Your task to perform on an android device: Add "beats solo 3" to the cart on costco Image 0: 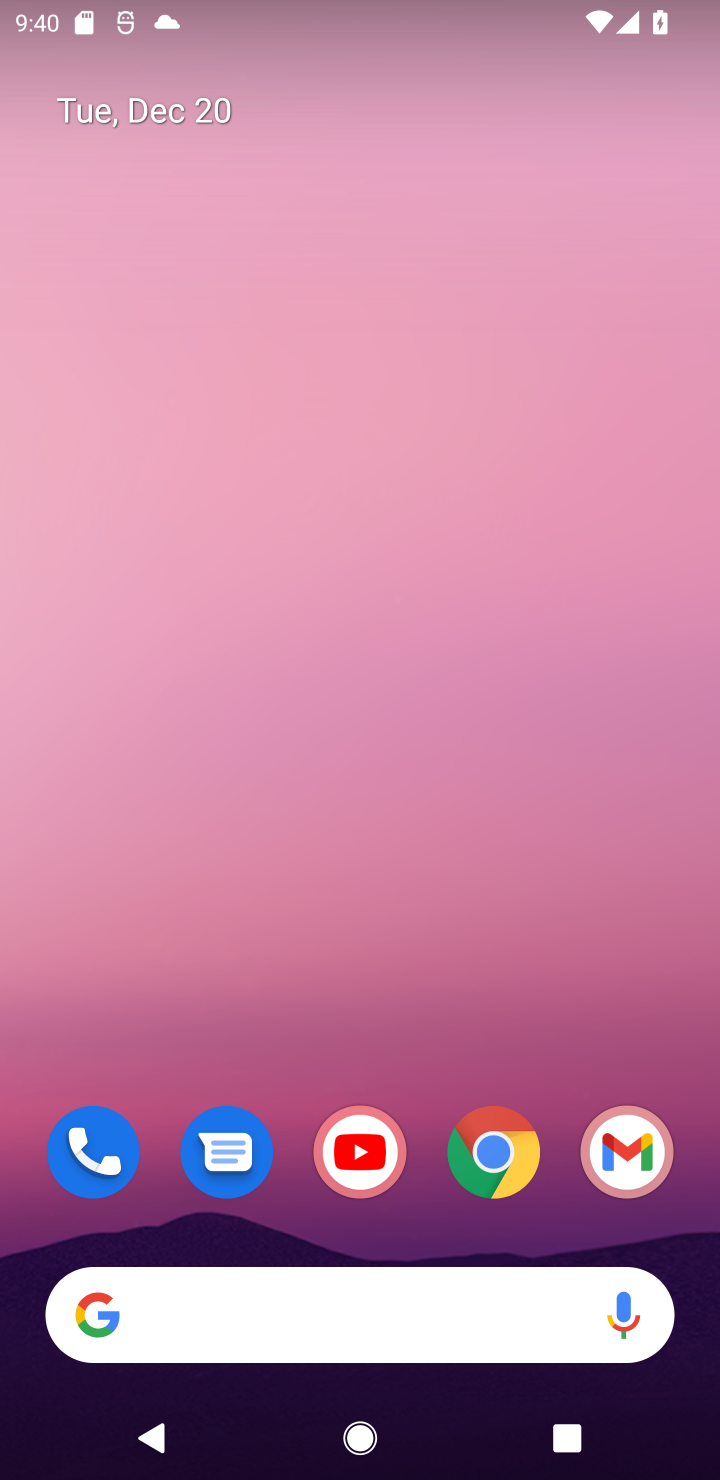
Step 0: click (511, 1137)
Your task to perform on an android device: Add "beats solo 3" to the cart on costco Image 1: 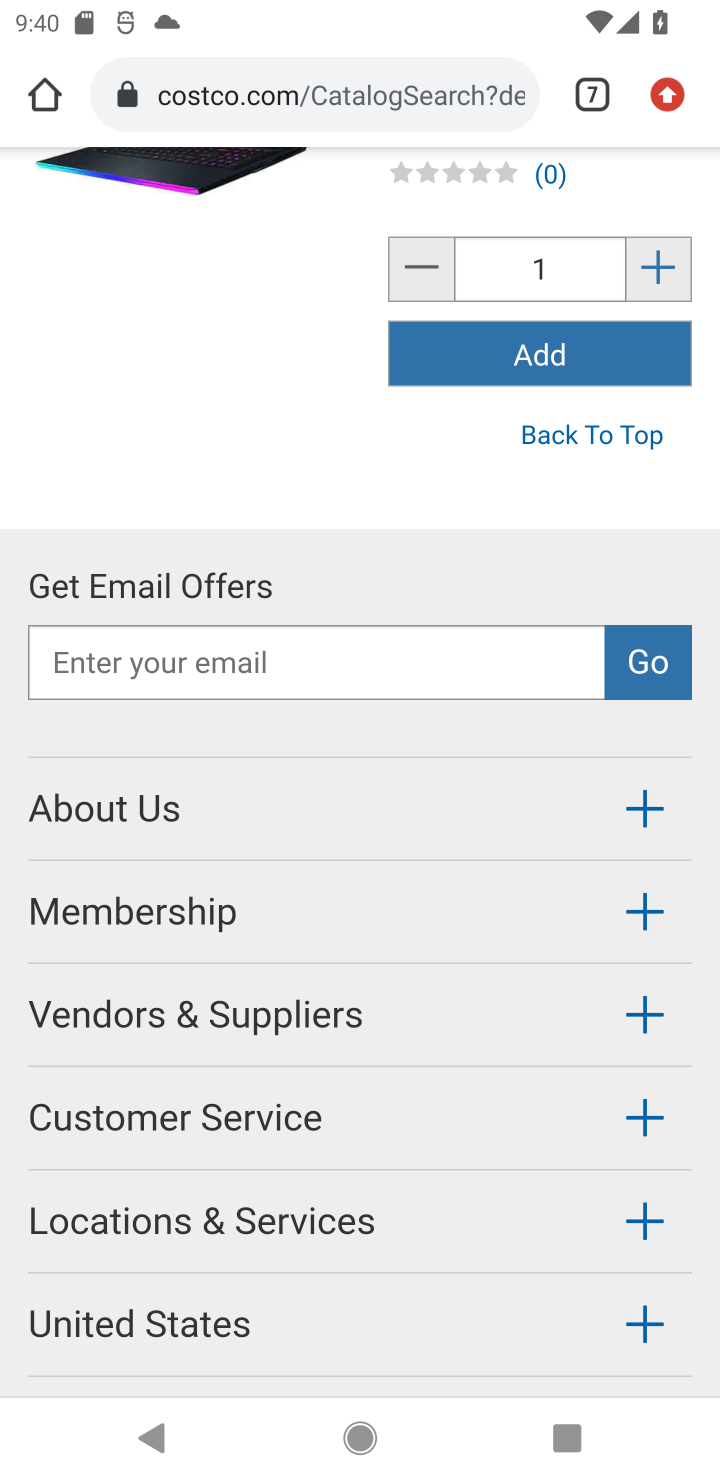
Step 1: drag from (200, 289) to (110, 1034)
Your task to perform on an android device: Add "beats solo 3" to the cart on costco Image 2: 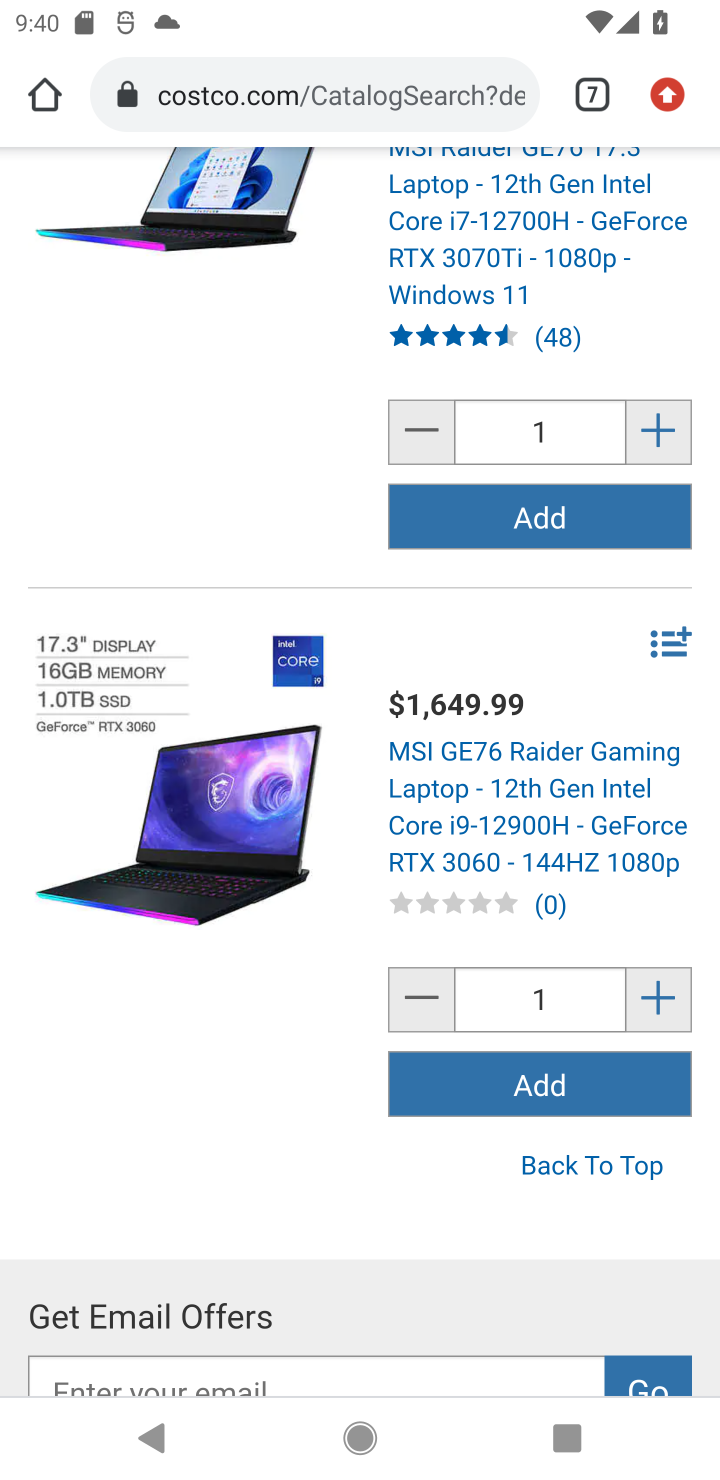
Step 2: drag from (126, 703) to (164, 1074)
Your task to perform on an android device: Add "beats solo 3" to the cart on costco Image 3: 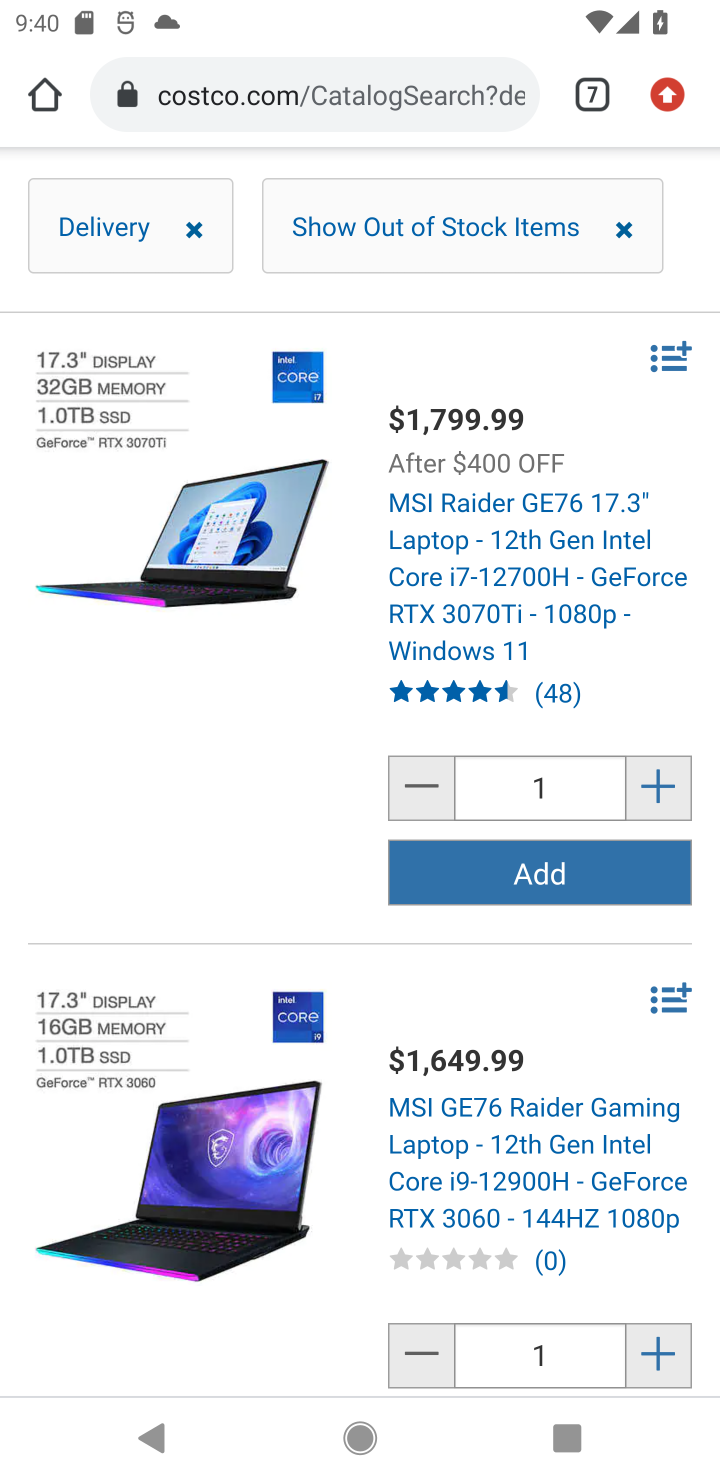
Step 3: drag from (377, 442) to (353, 1029)
Your task to perform on an android device: Add "beats solo 3" to the cart on costco Image 4: 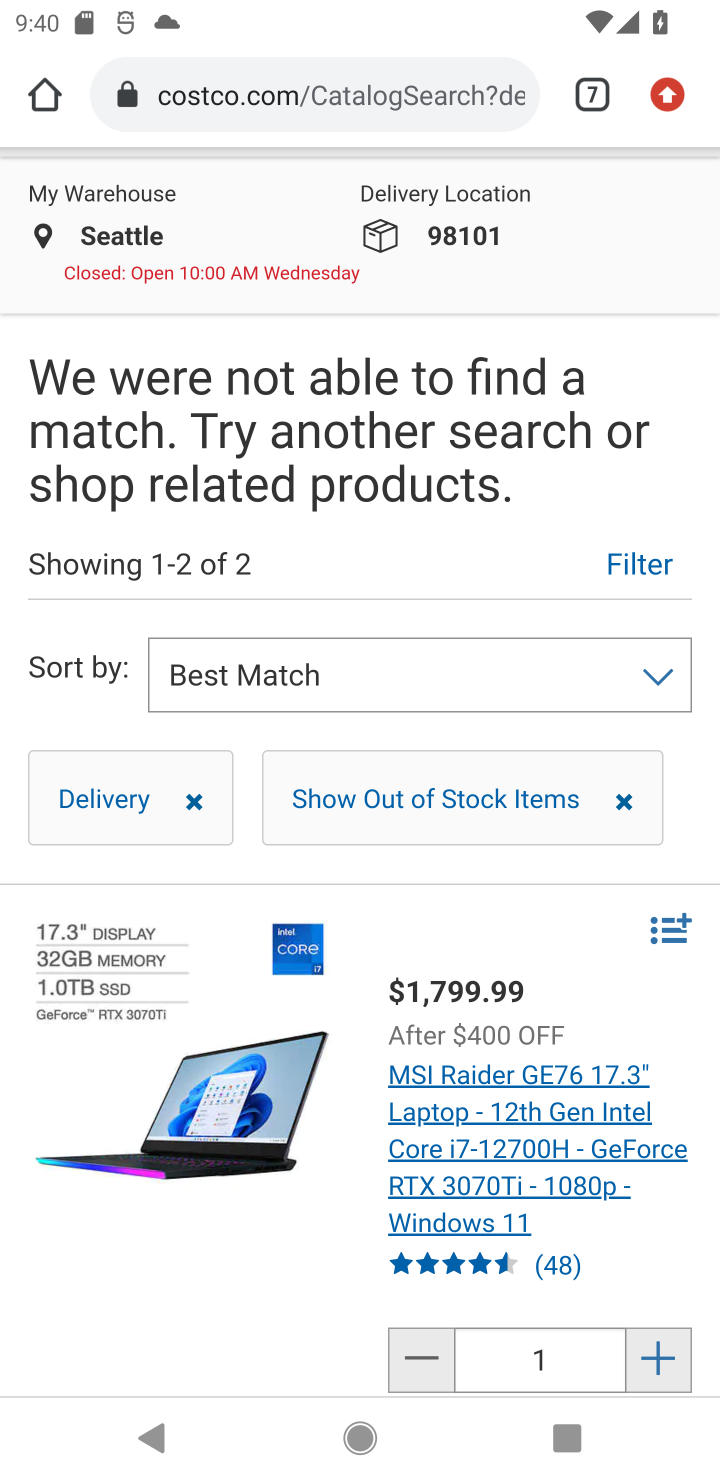
Step 4: drag from (540, 237) to (479, 898)
Your task to perform on an android device: Add "beats solo 3" to the cart on costco Image 5: 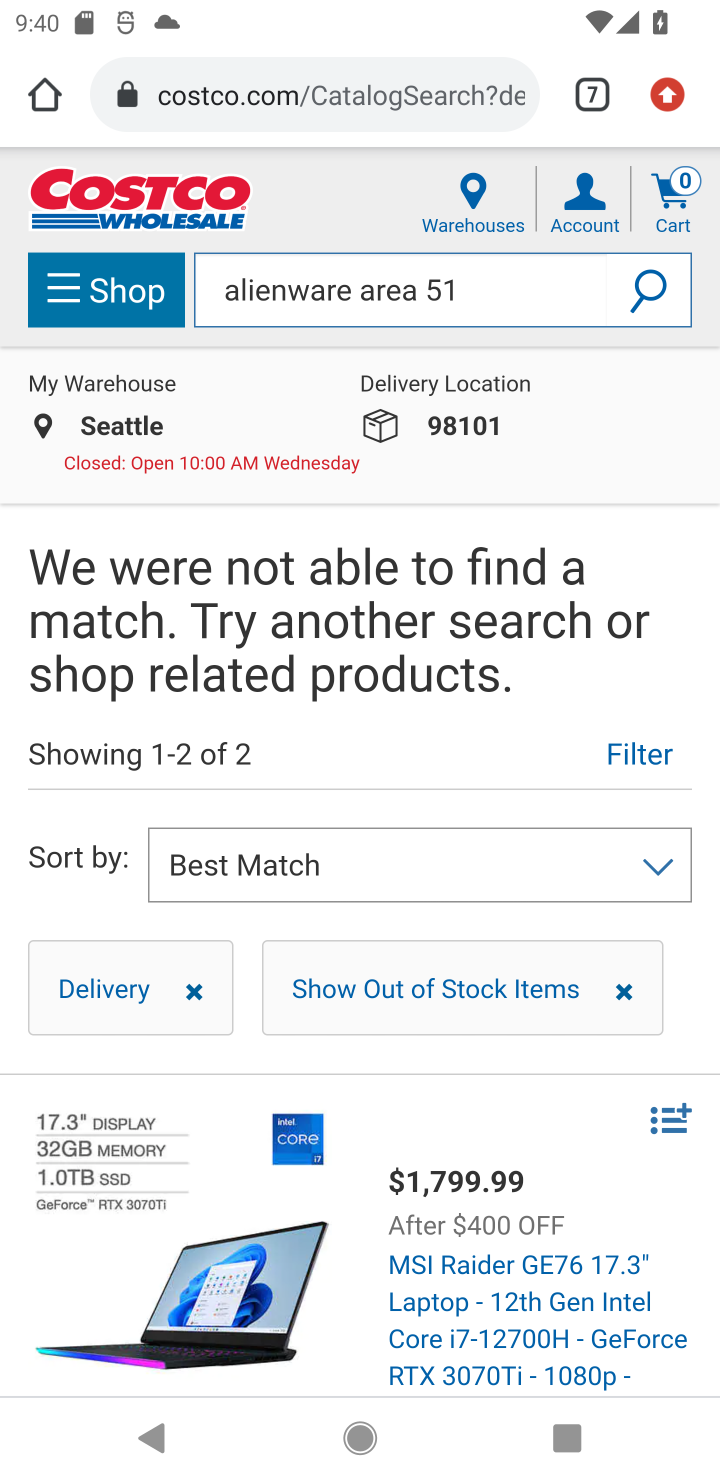
Step 5: click (512, 267)
Your task to perform on an android device: Add "beats solo 3" to the cart on costco Image 6: 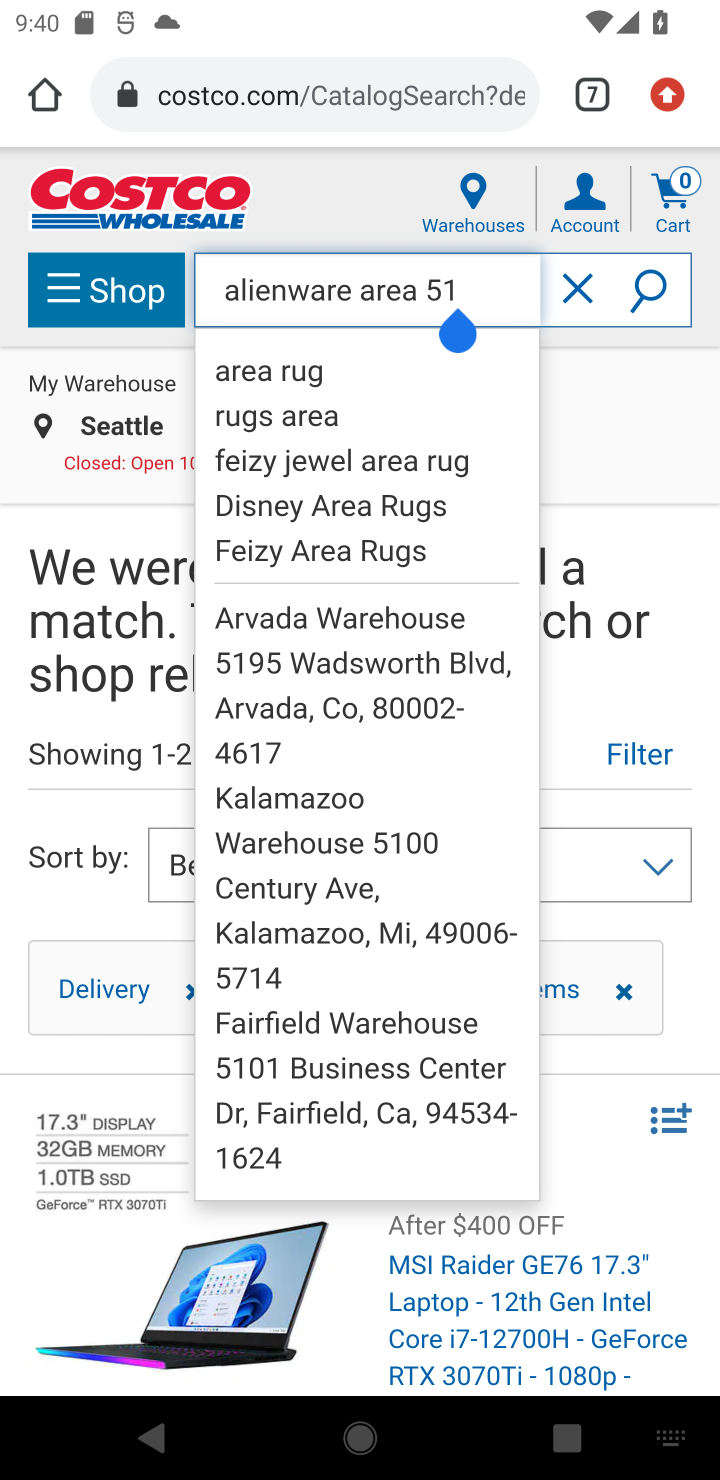
Step 6: click (570, 287)
Your task to perform on an android device: Add "beats solo 3" to the cart on costco Image 7: 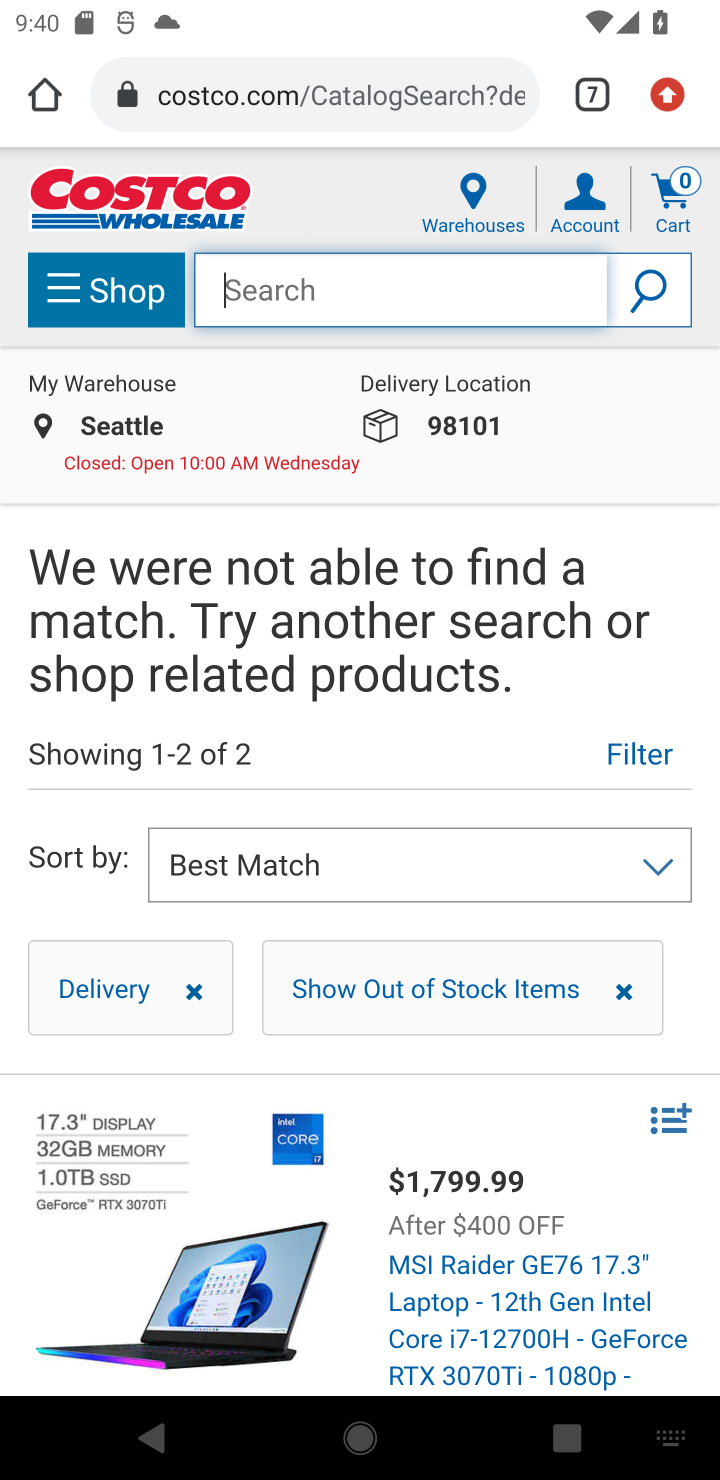
Step 7: type "beats solo 3"
Your task to perform on an android device: Add "beats solo 3" to the cart on costco Image 8: 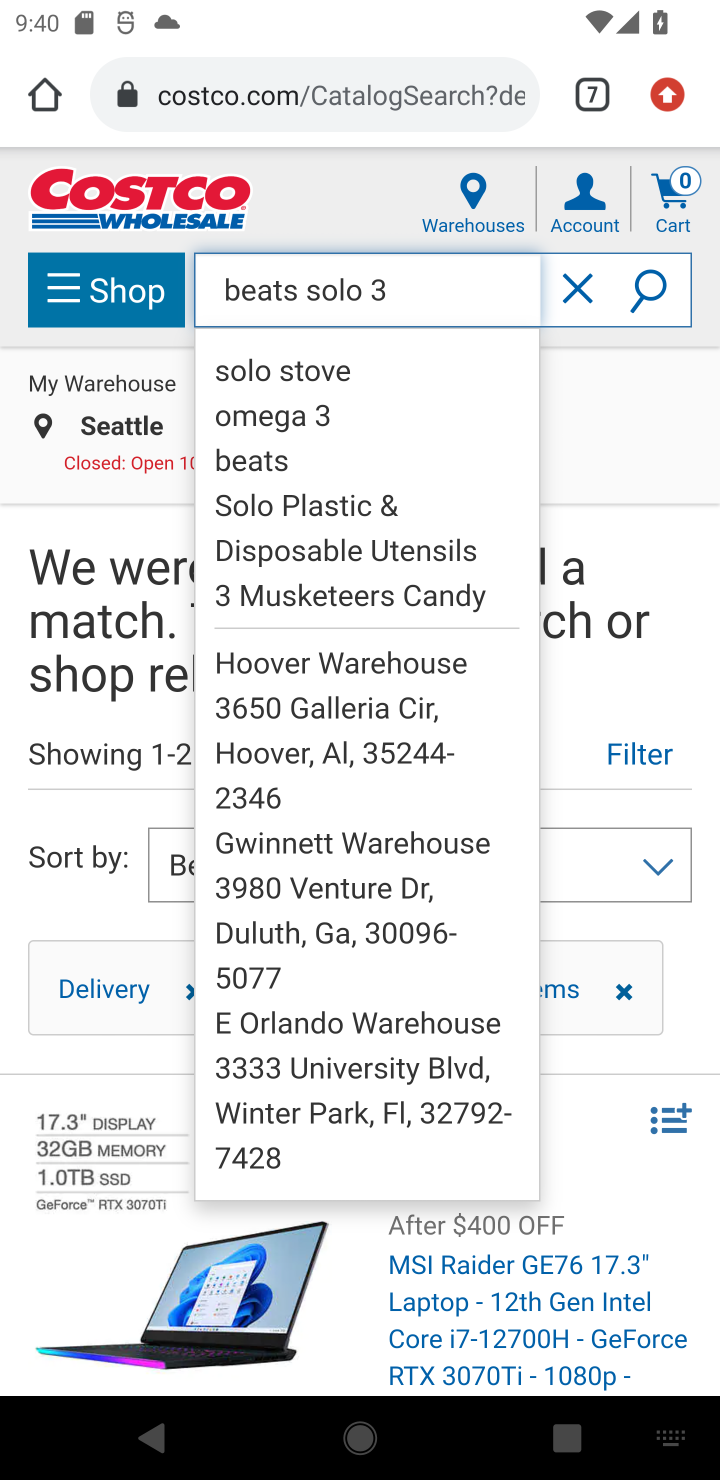
Step 8: click (646, 280)
Your task to perform on an android device: Add "beats solo 3" to the cart on costco Image 9: 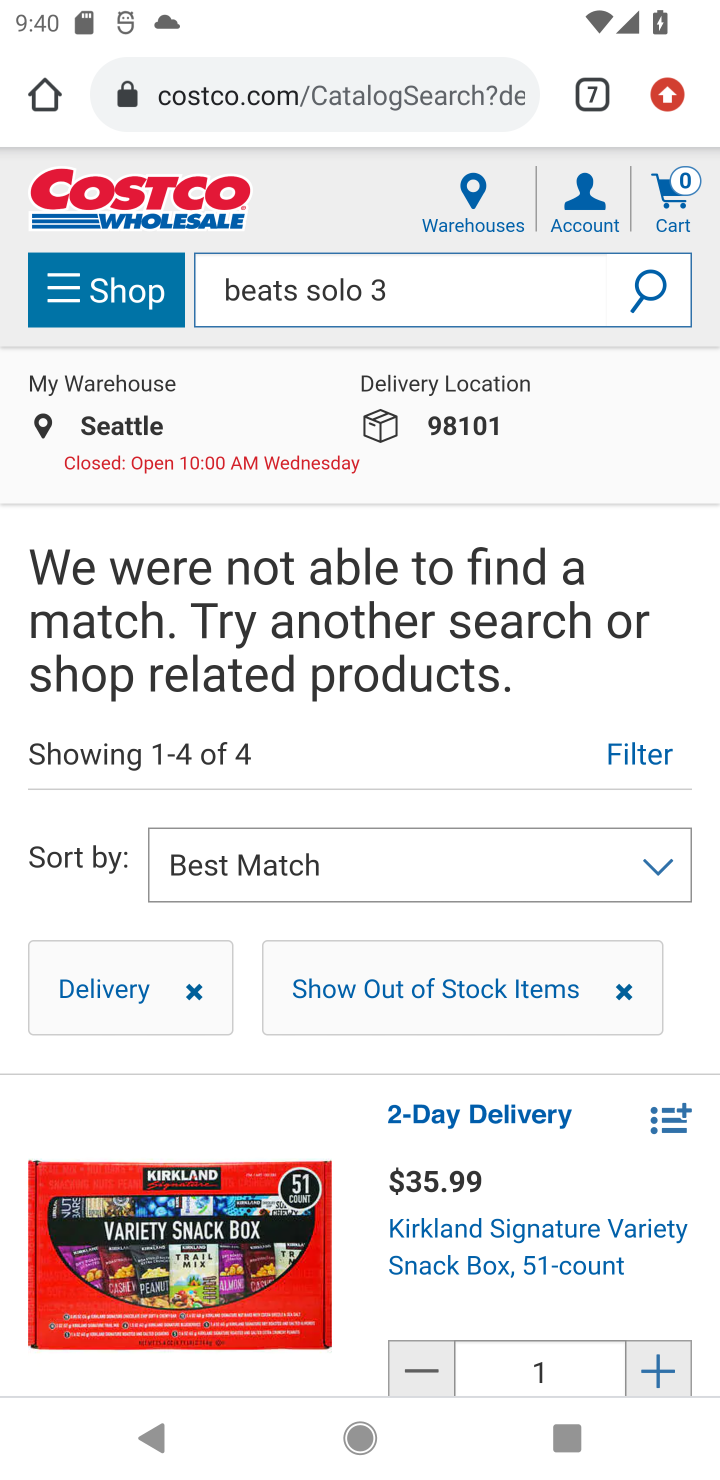
Step 9: task complete